Your task to perform on an android device: toggle improve location accuracy Image 0: 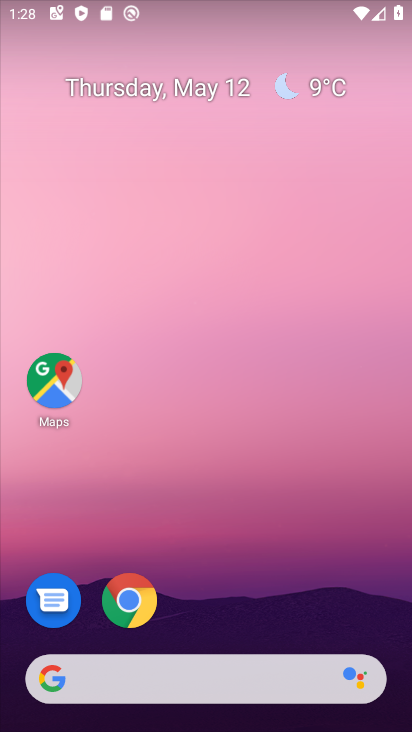
Step 0: drag from (246, 608) to (291, 164)
Your task to perform on an android device: toggle improve location accuracy Image 1: 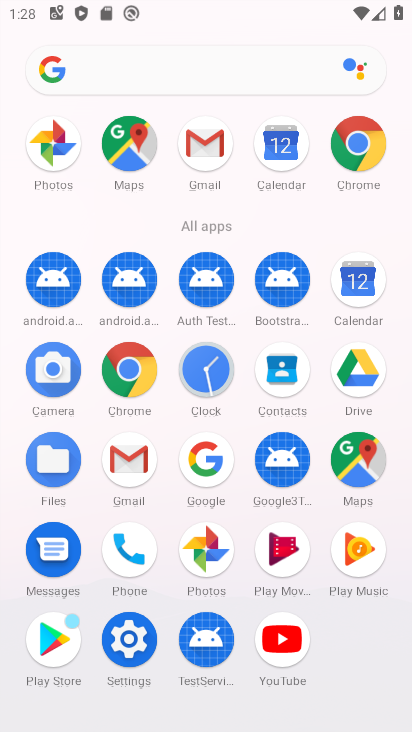
Step 1: click (122, 640)
Your task to perform on an android device: toggle improve location accuracy Image 2: 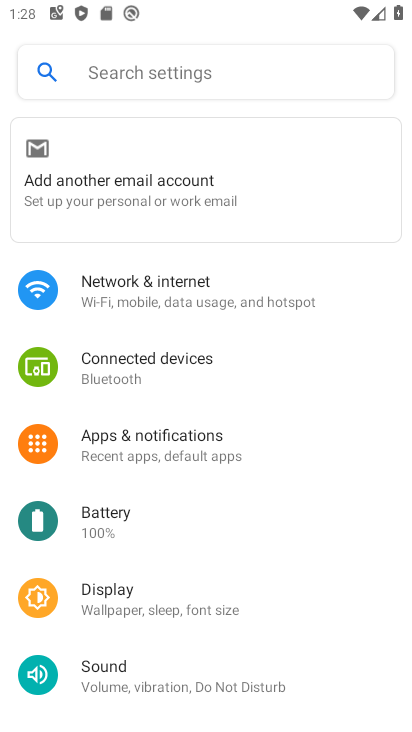
Step 2: drag from (197, 652) to (164, 260)
Your task to perform on an android device: toggle improve location accuracy Image 3: 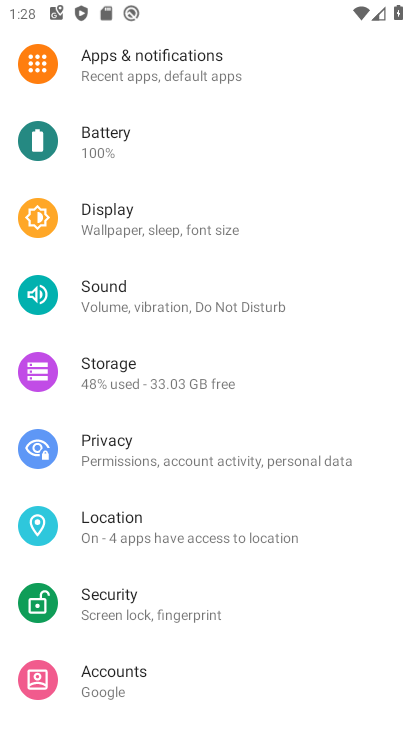
Step 3: drag from (182, 381) to (187, 198)
Your task to perform on an android device: toggle improve location accuracy Image 4: 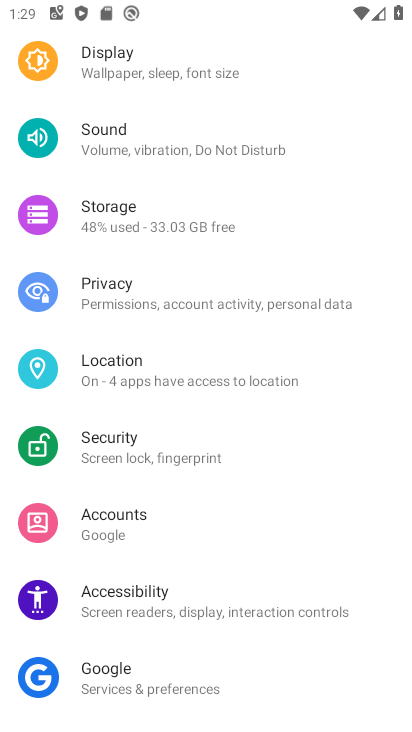
Step 4: drag from (213, 567) to (228, 270)
Your task to perform on an android device: toggle improve location accuracy Image 5: 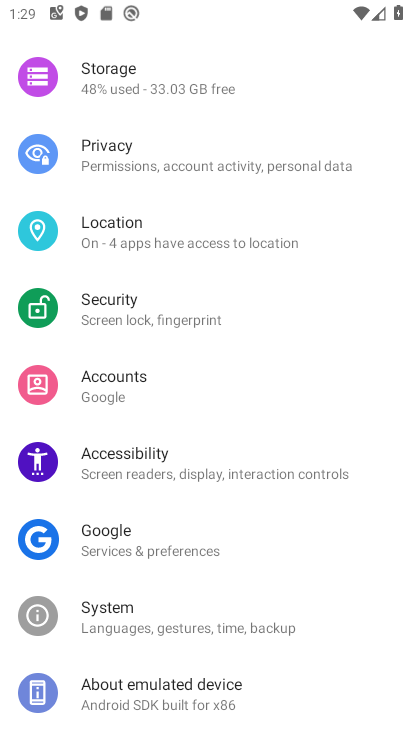
Step 5: drag from (260, 50) to (264, 254)
Your task to perform on an android device: toggle improve location accuracy Image 6: 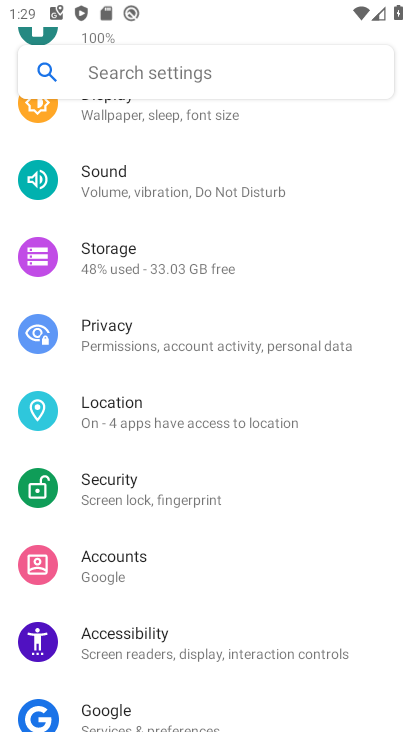
Step 6: drag from (264, 254) to (268, 449)
Your task to perform on an android device: toggle improve location accuracy Image 7: 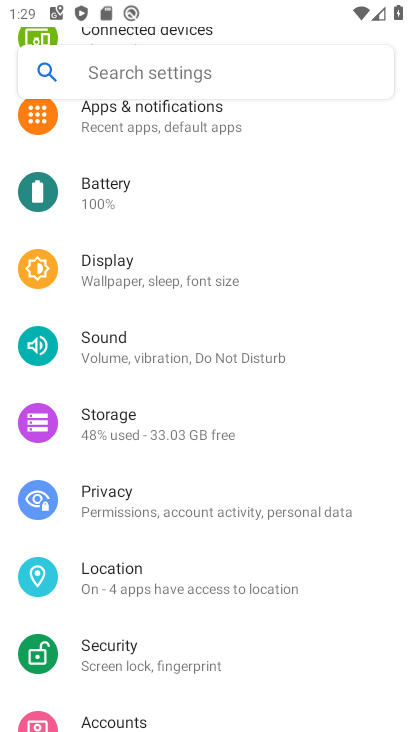
Step 7: click (114, 599)
Your task to perform on an android device: toggle improve location accuracy Image 8: 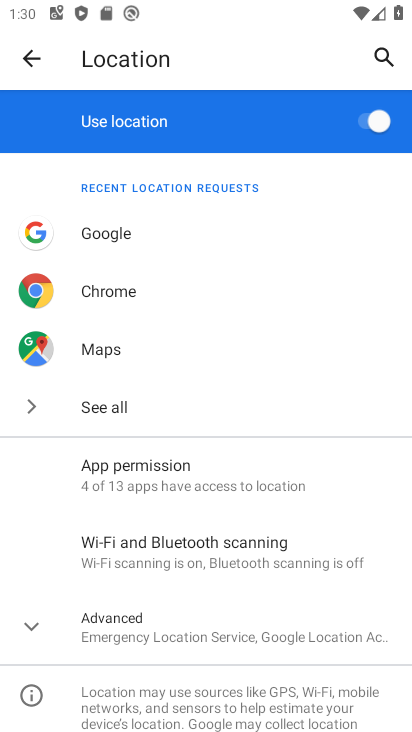
Step 8: click (158, 623)
Your task to perform on an android device: toggle improve location accuracy Image 9: 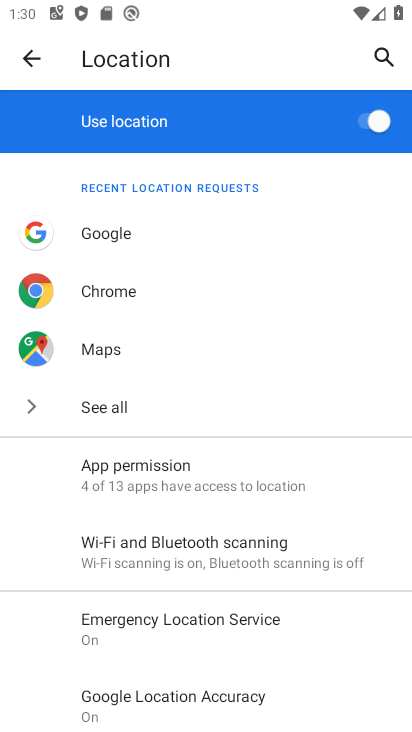
Step 9: click (214, 716)
Your task to perform on an android device: toggle improve location accuracy Image 10: 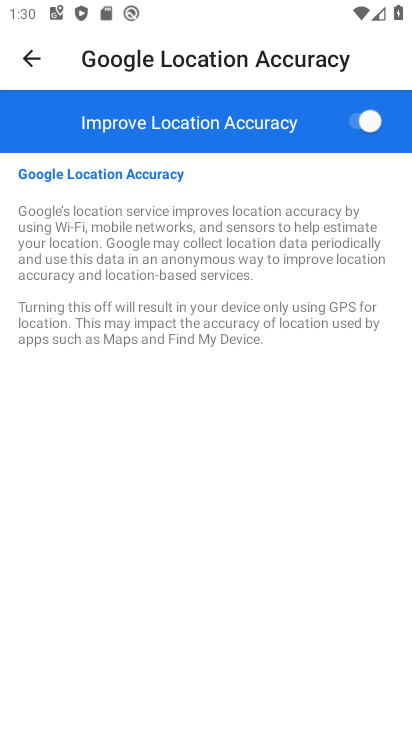
Step 10: click (361, 134)
Your task to perform on an android device: toggle improve location accuracy Image 11: 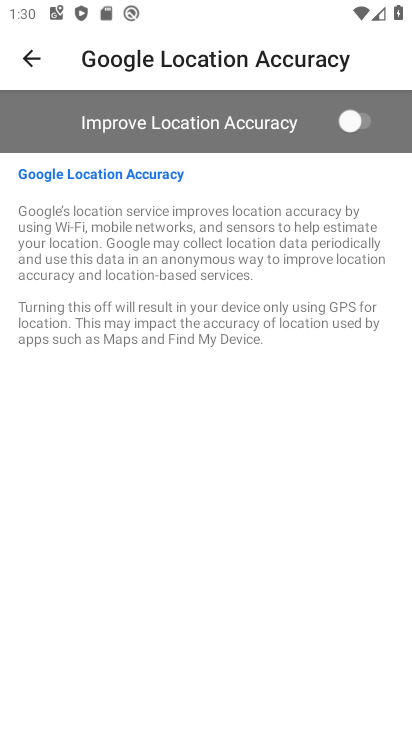
Step 11: task complete